Your task to perform on an android device: Open the calendar app, open the side menu, and click the "Day" option Image 0: 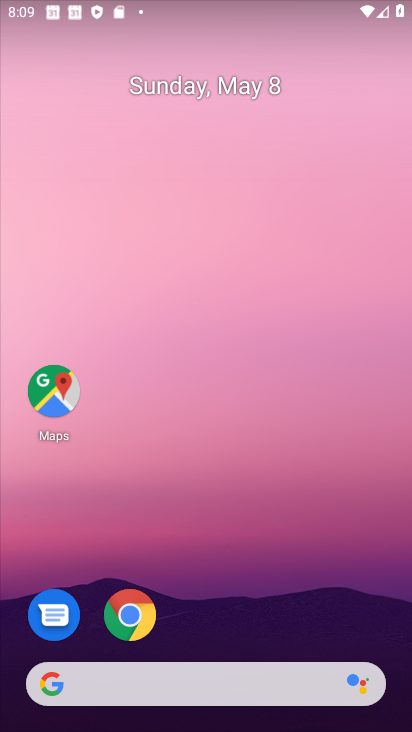
Step 0: drag from (246, 604) to (229, 187)
Your task to perform on an android device: Open the calendar app, open the side menu, and click the "Day" option Image 1: 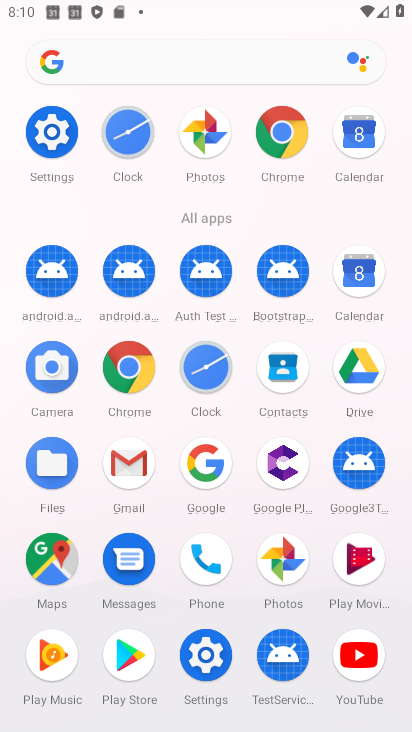
Step 1: click (349, 136)
Your task to perform on an android device: Open the calendar app, open the side menu, and click the "Day" option Image 2: 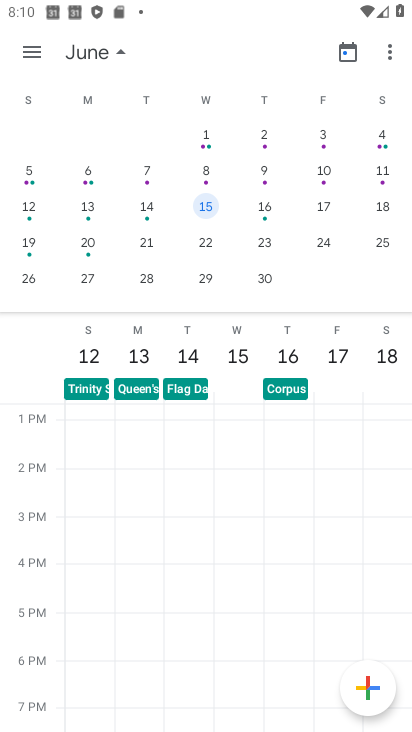
Step 2: click (16, 62)
Your task to perform on an android device: Open the calendar app, open the side menu, and click the "Day" option Image 3: 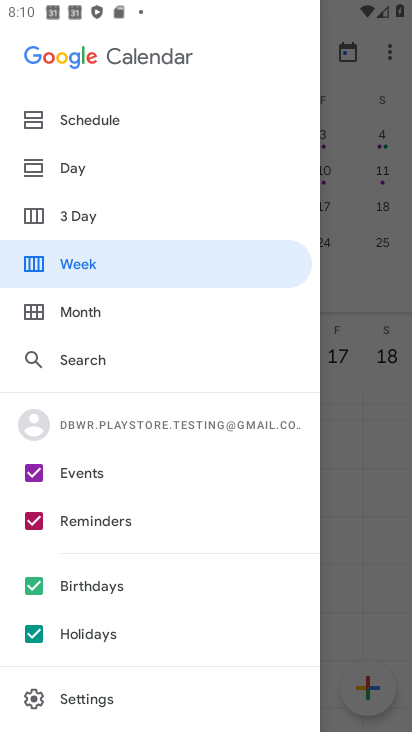
Step 3: click (94, 169)
Your task to perform on an android device: Open the calendar app, open the side menu, and click the "Day" option Image 4: 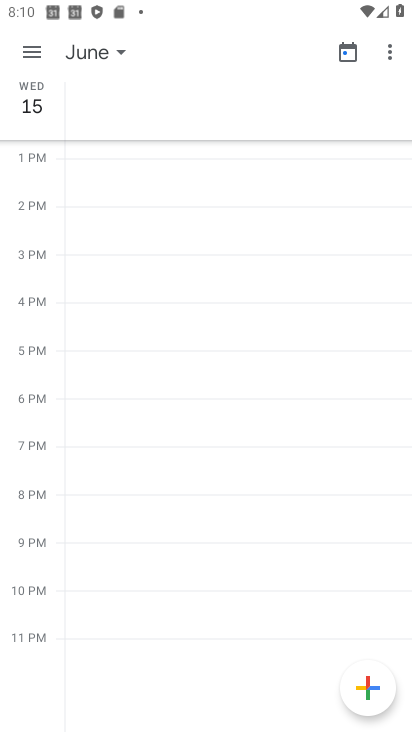
Step 4: task complete